Your task to perform on an android device: Go to Google maps Image 0: 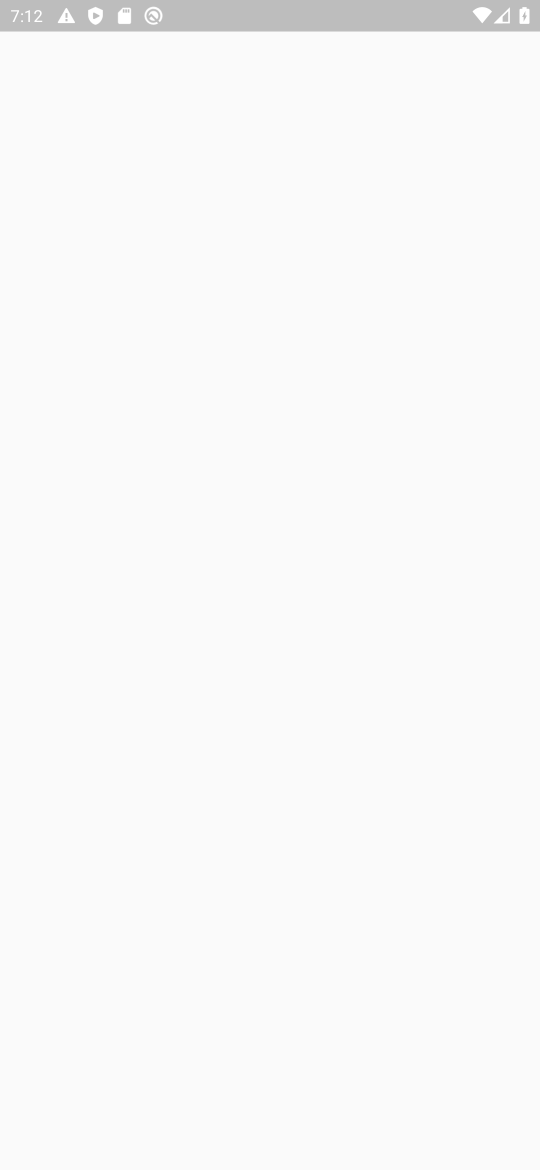
Step 0: press home button
Your task to perform on an android device: Go to Google maps Image 1: 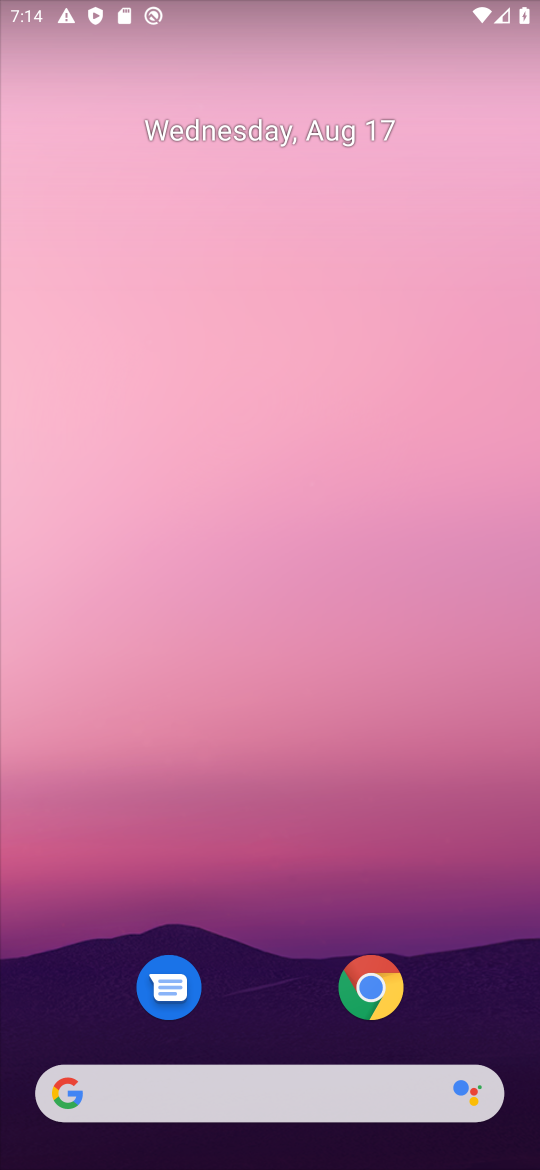
Step 1: drag from (509, 994) to (248, 0)
Your task to perform on an android device: Go to Google maps Image 2: 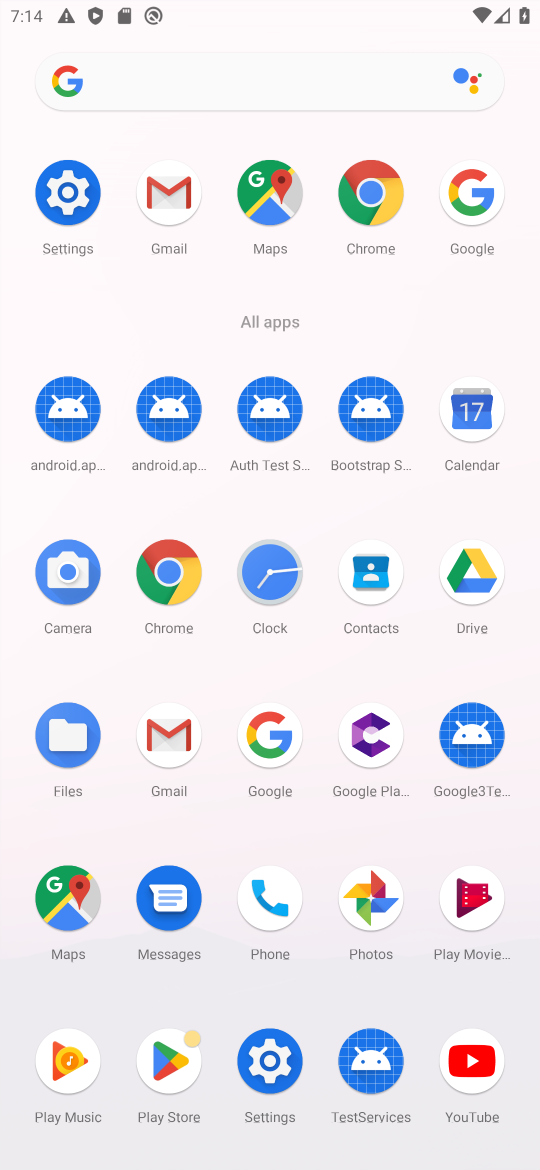
Step 2: click (41, 881)
Your task to perform on an android device: Go to Google maps Image 3: 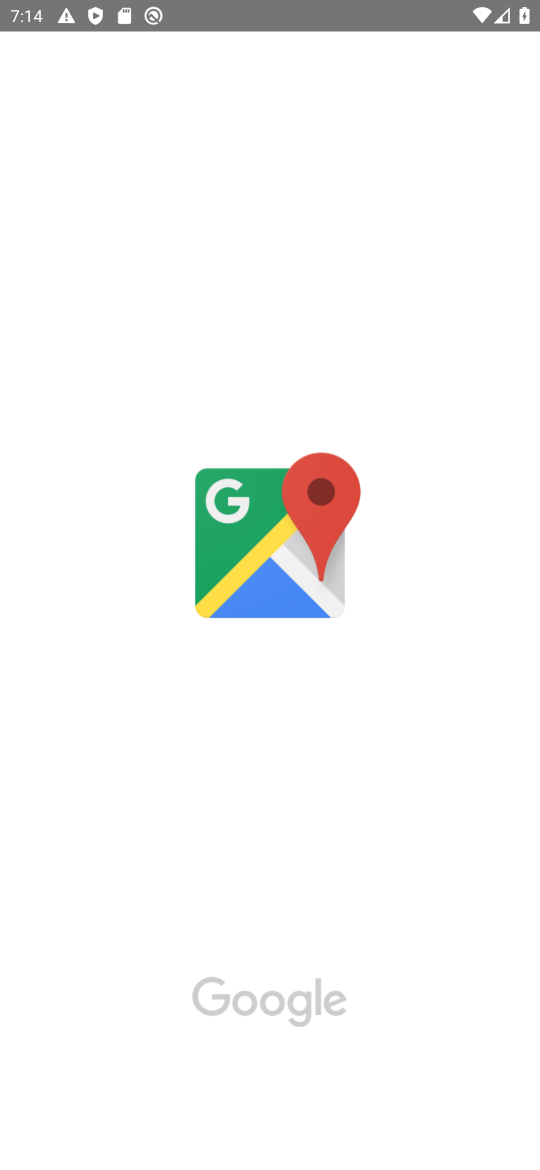
Step 3: task complete